Your task to perform on an android device: Open Wikipedia Image 0: 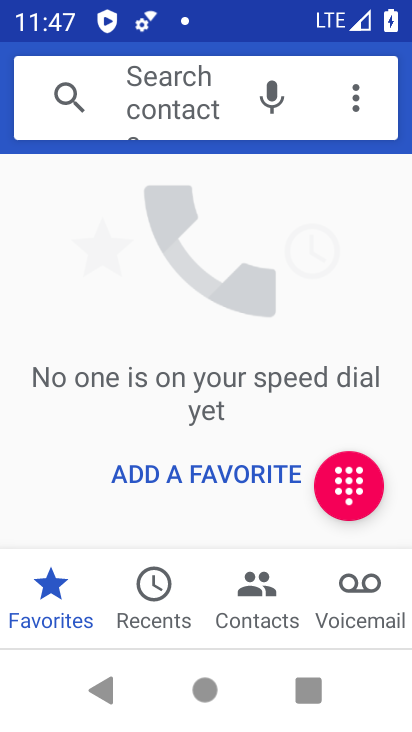
Step 0: press home button
Your task to perform on an android device: Open Wikipedia Image 1: 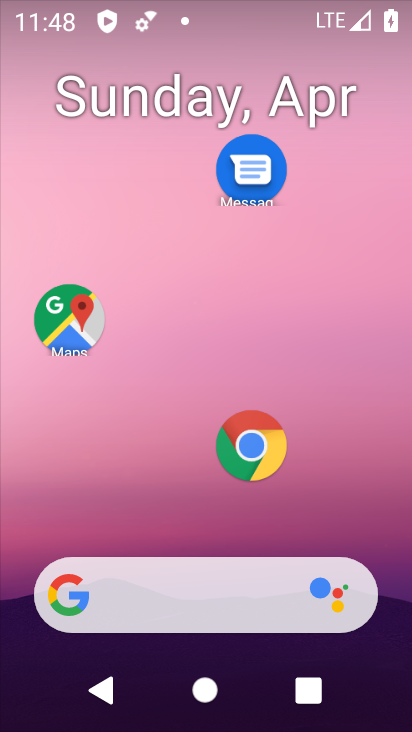
Step 1: drag from (155, 597) to (254, 91)
Your task to perform on an android device: Open Wikipedia Image 2: 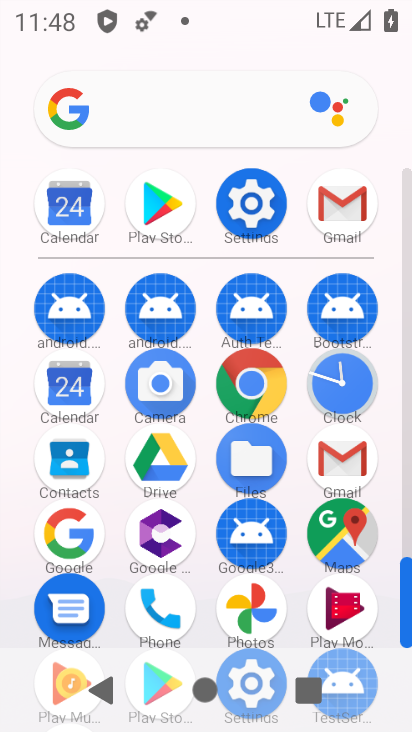
Step 2: click (266, 392)
Your task to perform on an android device: Open Wikipedia Image 3: 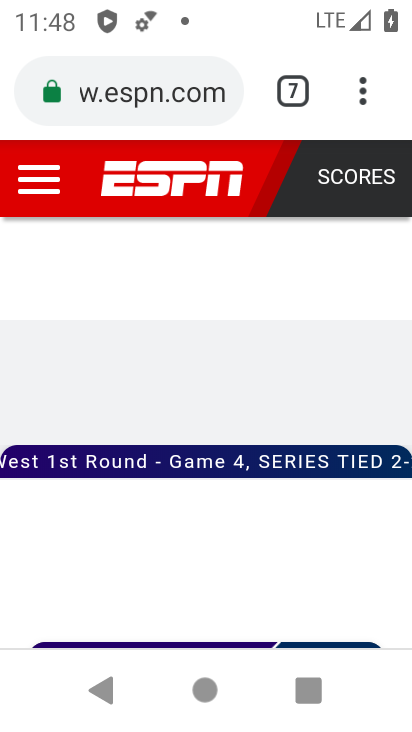
Step 3: drag from (362, 104) to (103, 296)
Your task to perform on an android device: Open Wikipedia Image 4: 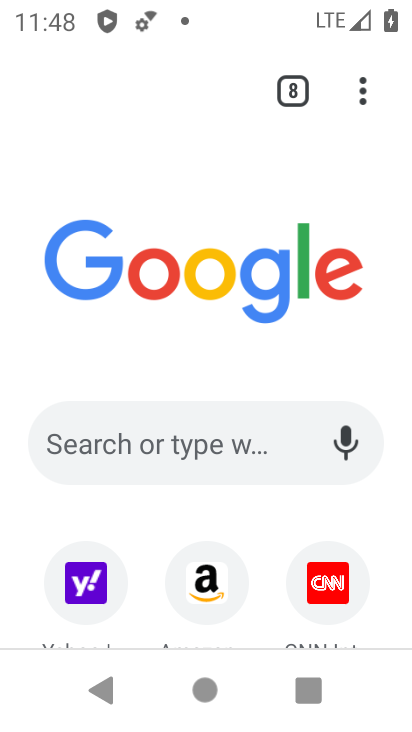
Step 4: drag from (158, 600) to (358, 138)
Your task to perform on an android device: Open Wikipedia Image 5: 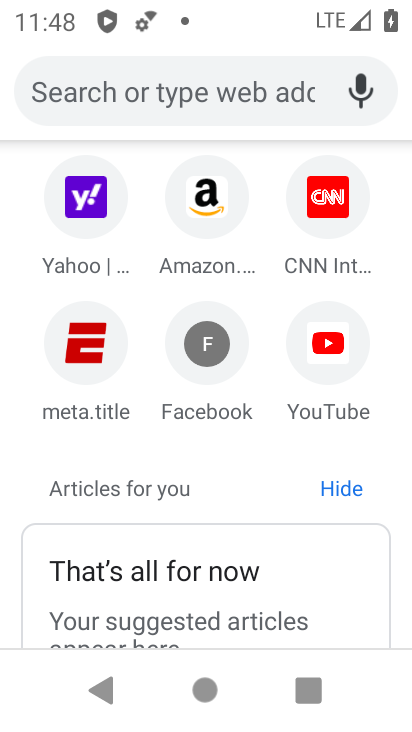
Step 5: drag from (222, 317) to (226, 612)
Your task to perform on an android device: Open Wikipedia Image 6: 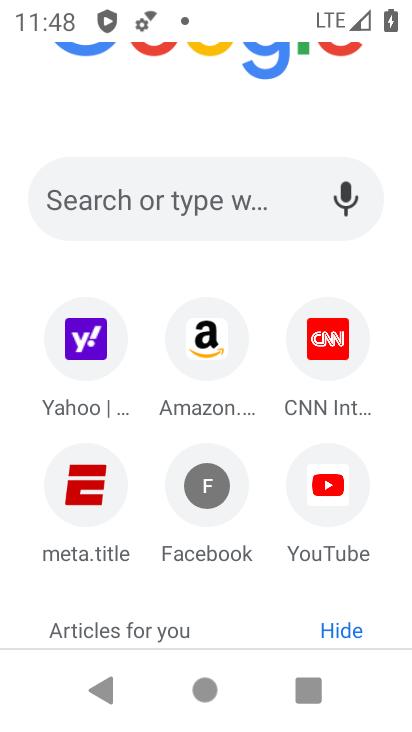
Step 6: click (98, 203)
Your task to perform on an android device: Open Wikipedia Image 7: 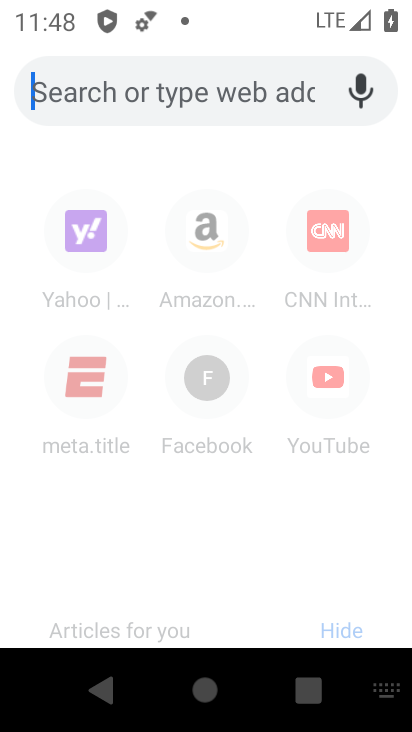
Step 7: type "wikipedia"
Your task to perform on an android device: Open Wikipedia Image 8: 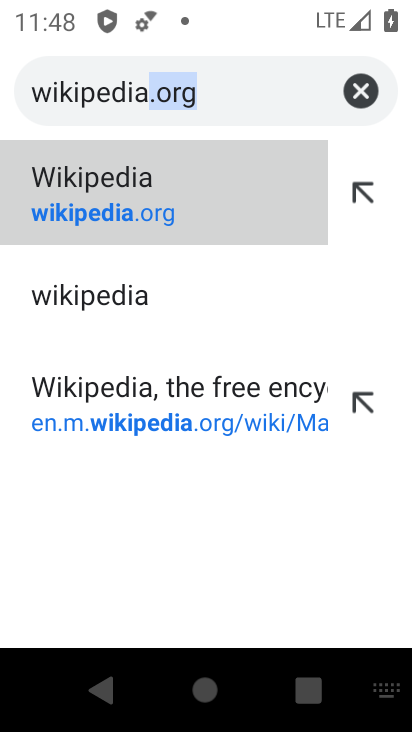
Step 8: click (96, 192)
Your task to perform on an android device: Open Wikipedia Image 9: 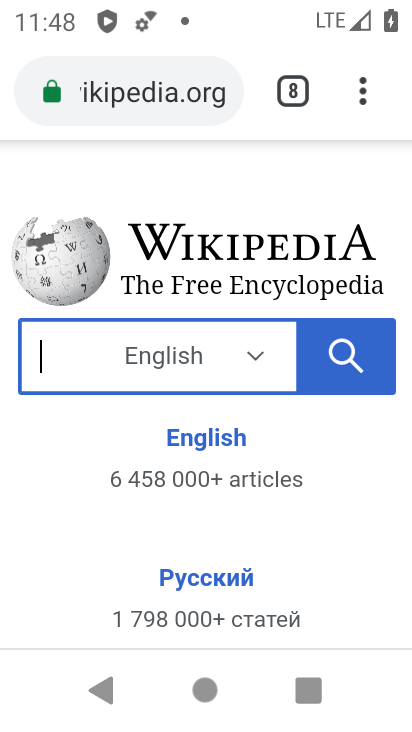
Step 9: task complete